Your task to perform on an android device: Open Yahoo.com Image 0: 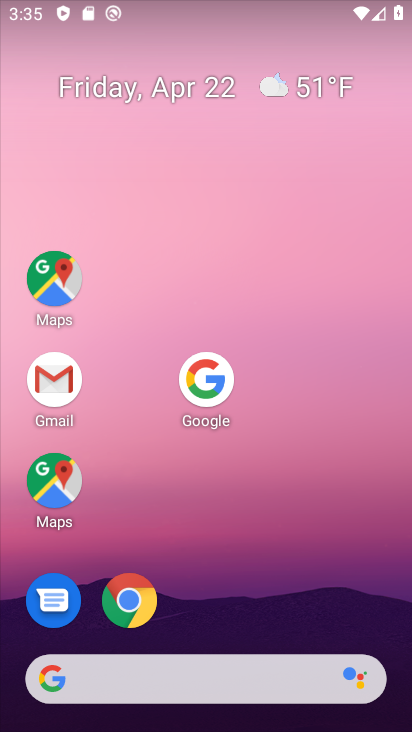
Step 0: drag from (279, 660) to (200, 189)
Your task to perform on an android device: Open Yahoo.com Image 1: 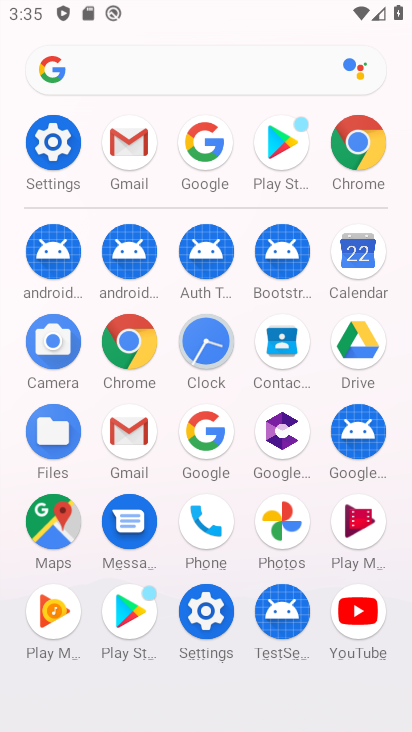
Step 1: click (359, 148)
Your task to perform on an android device: Open Yahoo.com Image 2: 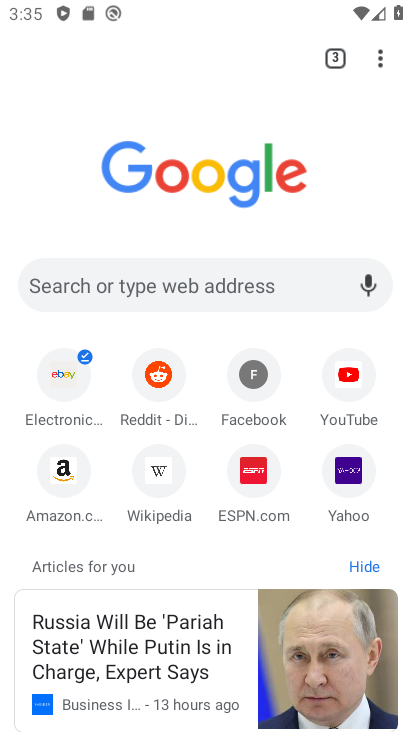
Step 2: click (337, 467)
Your task to perform on an android device: Open Yahoo.com Image 3: 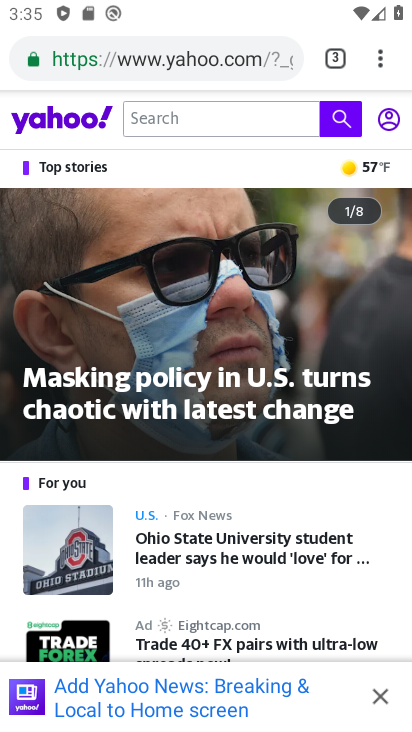
Step 3: task complete